Your task to perform on an android device: delete location history Image 0: 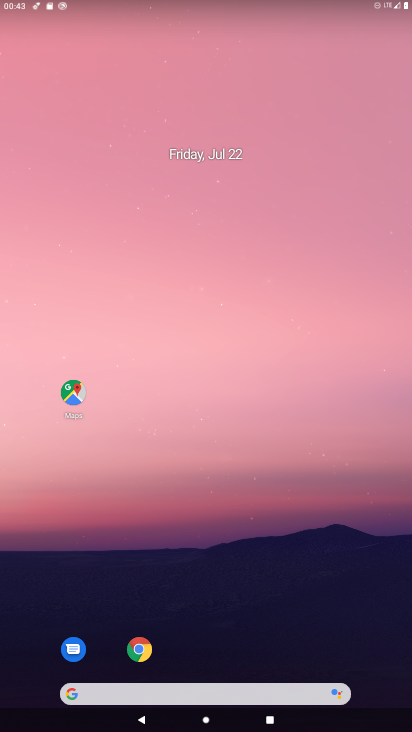
Step 0: drag from (231, 616) to (230, 197)
Your task to perform on an android device: delete location history Image 1: 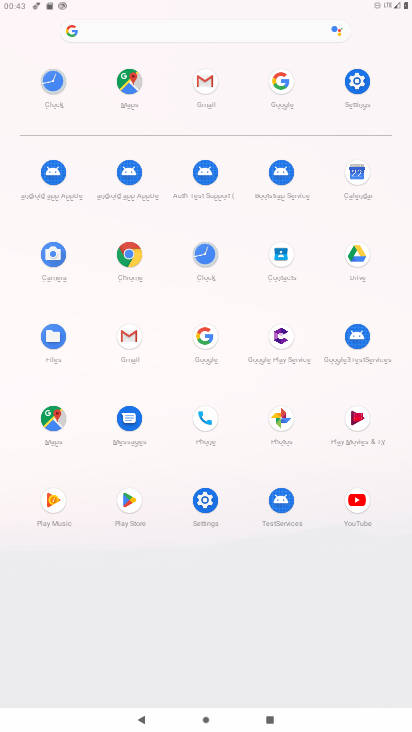
Step 1: click (357, 75)
Your task to perform on an android device: delete location history Image 2: 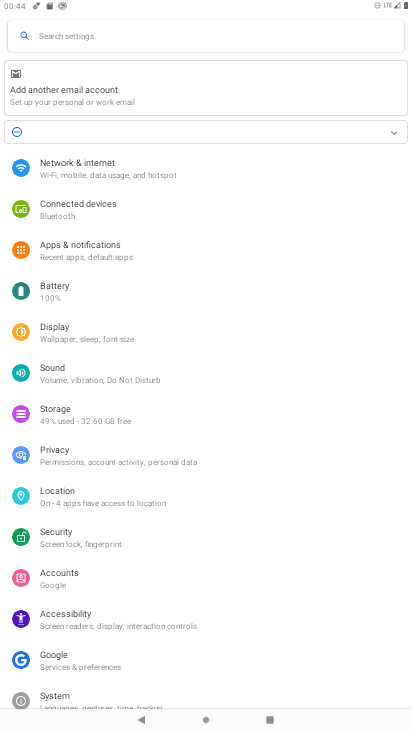
Step 2: click (66, 491)
Your task to perform on an android device: delete location history Image 3: 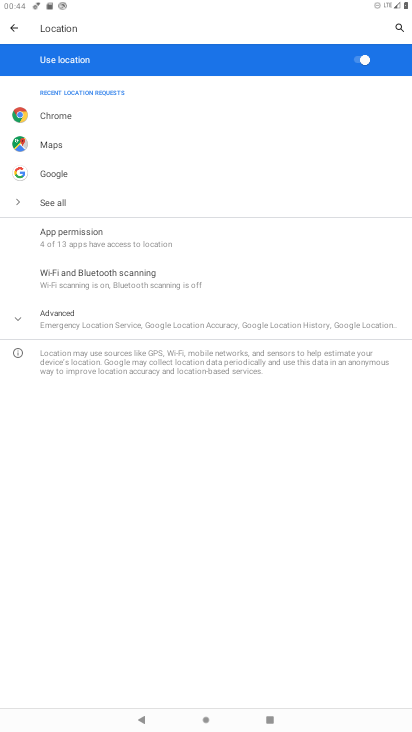
Step 3: click (98, 322)
Your task to perform on an android device: delete location history Image 4: 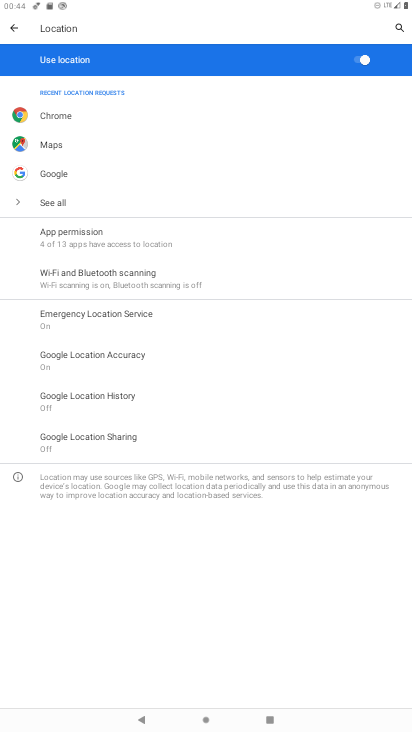
Step 4: click (99, 394)
Your task to perform on an android device: delete location history Image 5: 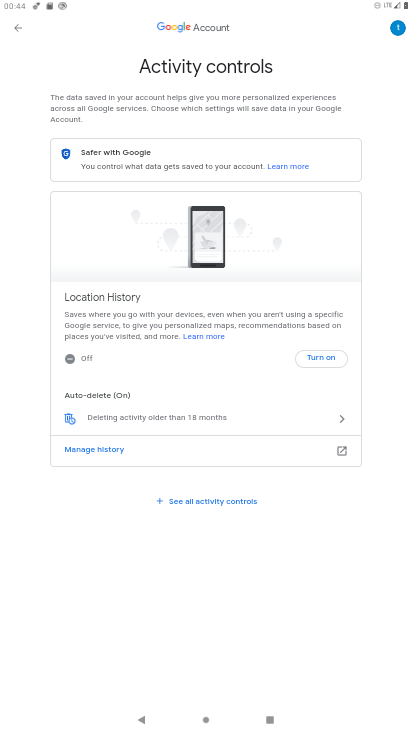
Step 5: click (331, 351)
Your task to perform on an android device: delete location history Image 6: 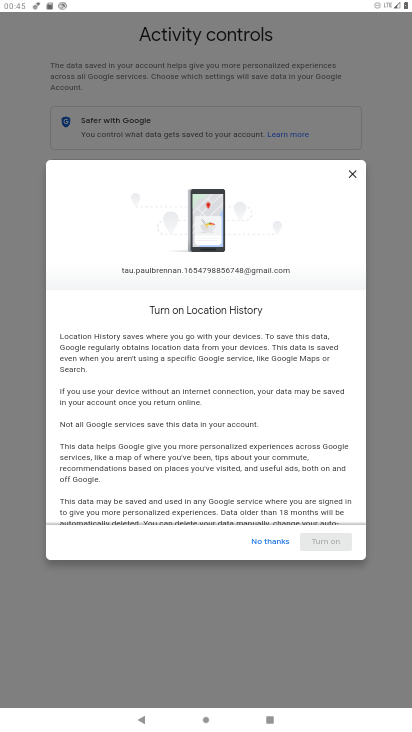
Step 6: drag from (284, 501) to (280, 209)
Your task to perform on an android device: delete location history Image 7: 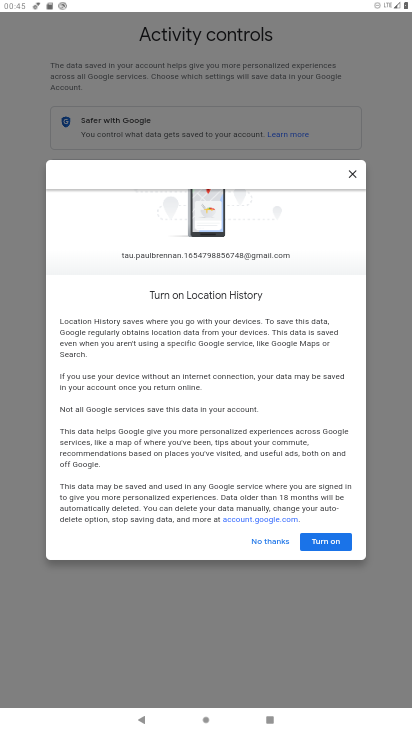
Step 7: click (332, 539)
Your task to perform on an android device: delete location history Image 8: 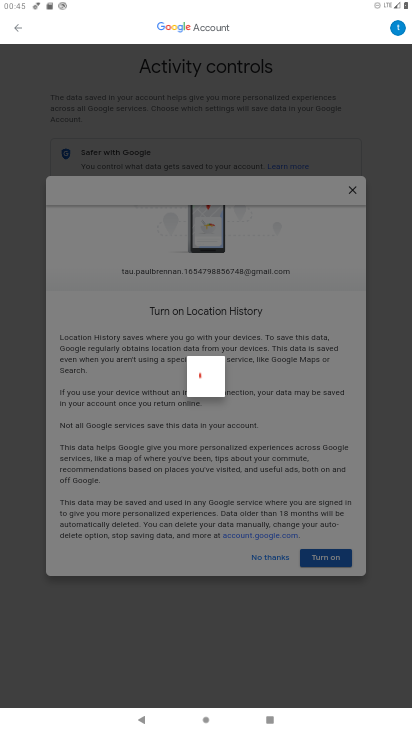
Step 8: click (329, 541)
Your task to perform on an android device: delete location history Image 9: 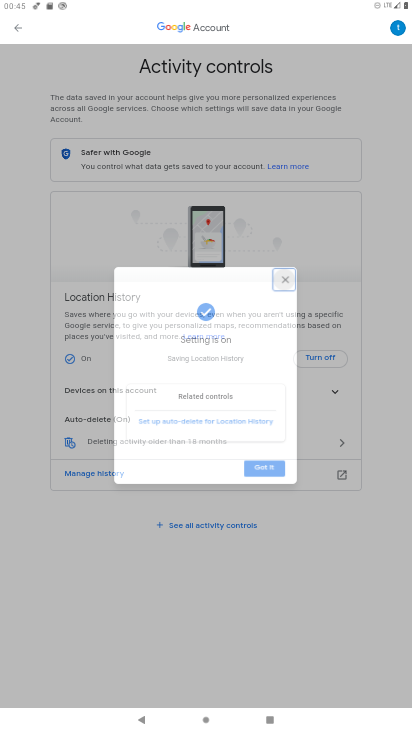
Step 9: click (328, 553)
Your task to perform on an android device: delete location history Image 10: 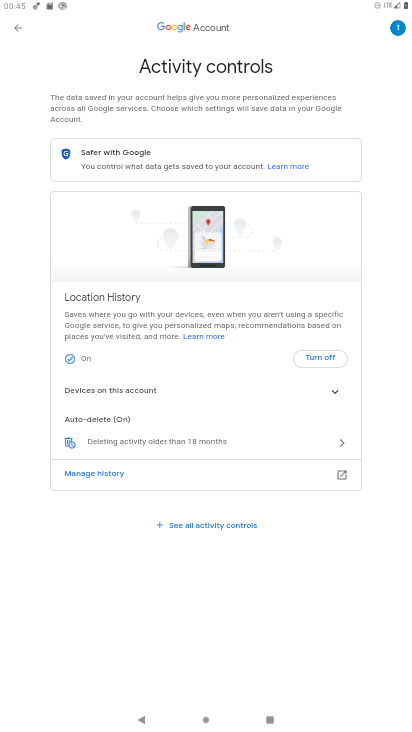
Step 10: task complete